Your task to perform on an android device: turn on location history Image 0: 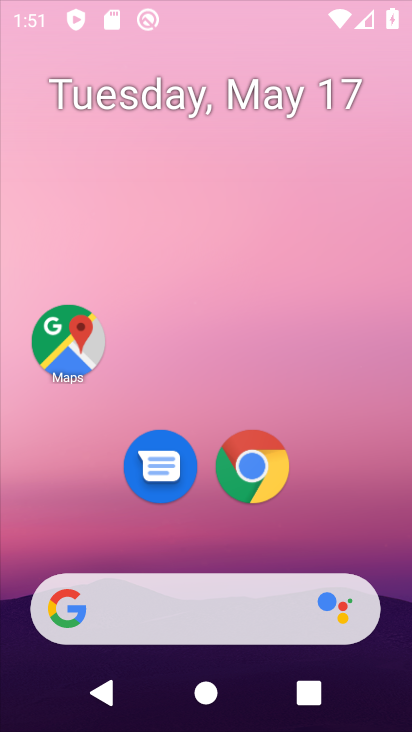
Step 0: click (264, 480)
Your task to perform on an android device: turn on location history Image 1: 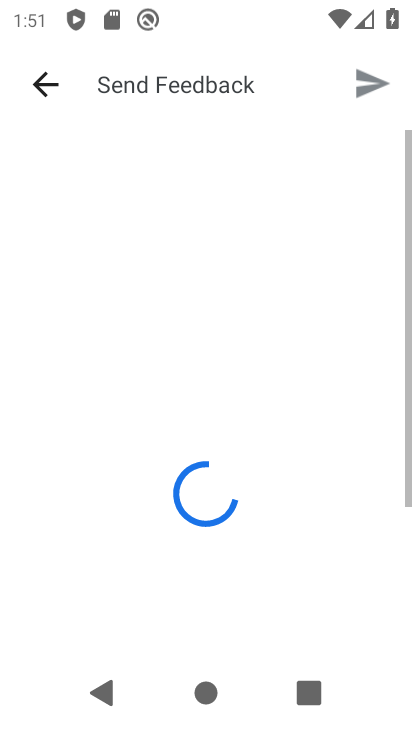
Step 1: click (279, 472)
Your task to perform on an android device: turn on location history Image 2: 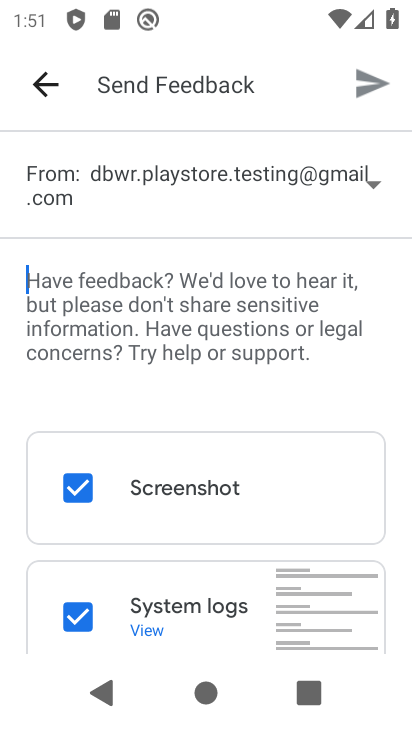
Step 2: press home button
Your task to perform on an android device: turn on location history Image 3: 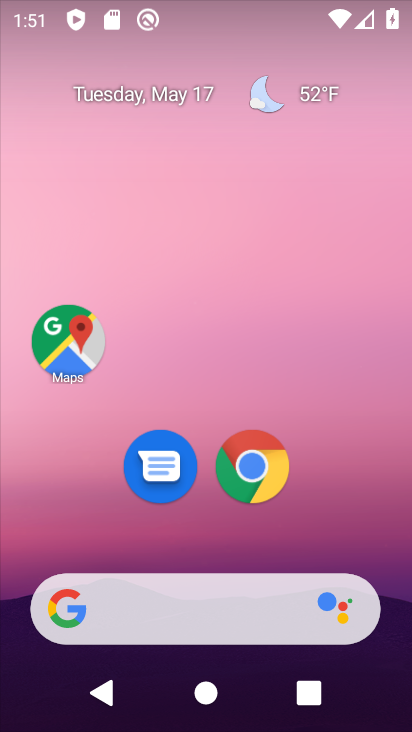
Step 3: drag from (81, 578) to (252, 120)
Your task to perform on an android device: turn on location history Image 4: 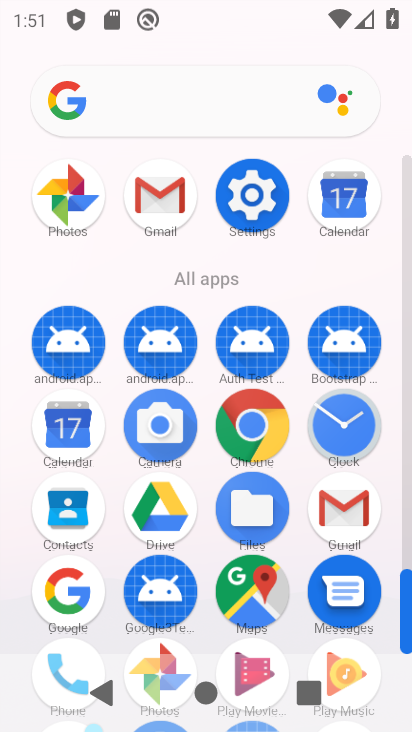
Step 4: drag from (197, 598) to (254, 340)
Your task to perform on an android device: turn on location history Image 5: 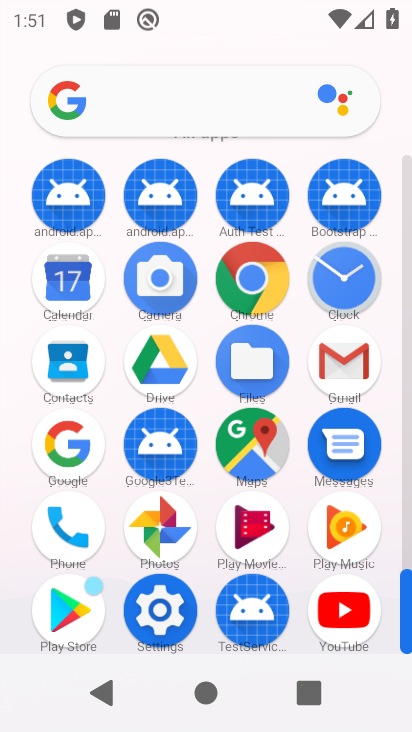
Step 5: click (154, 614)
Your task to perform on an android device: turn on location history Image 6: 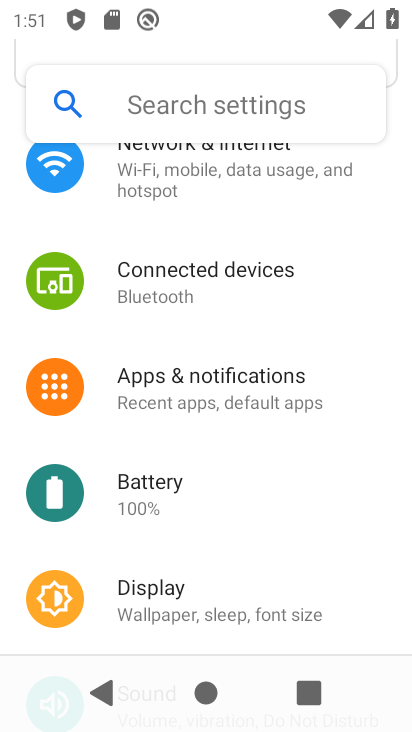
Step 6: drag from (217, 332) to (353, 197)
Your task to perform on an android device: turn on location history Image 7: 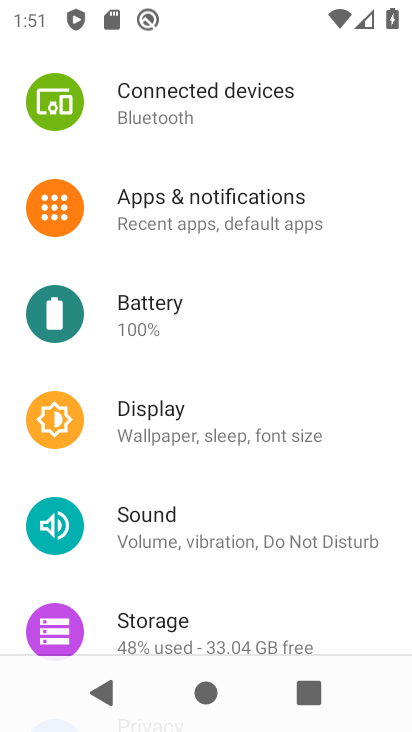
Step 7: drag from (196, 587) to (303, 245)
Your task to perform on an android device: turn on location history Image 8: 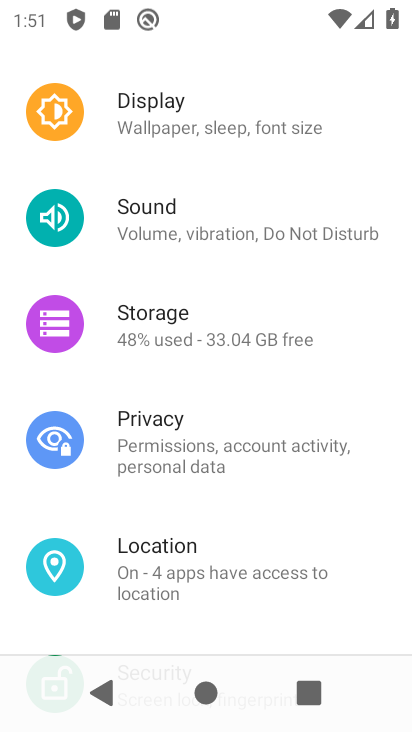
Step 8: click (195, 567)
Your task to perform on an android device: turn on location history Image 9: 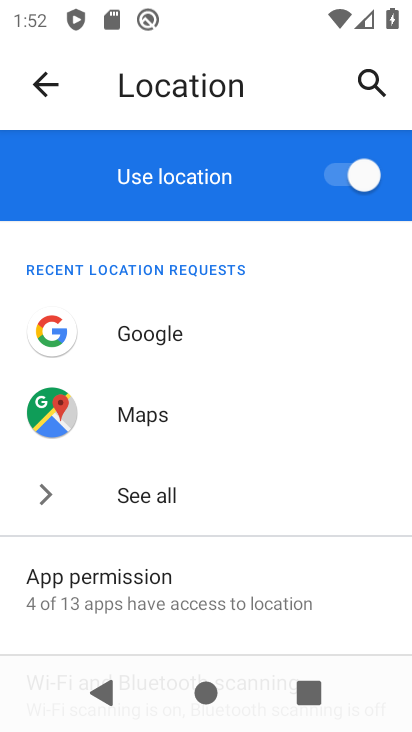
Step 9: drag from (167, 623) to (302, 297)
Your task to perform on an android device: turn on location history Image 10: 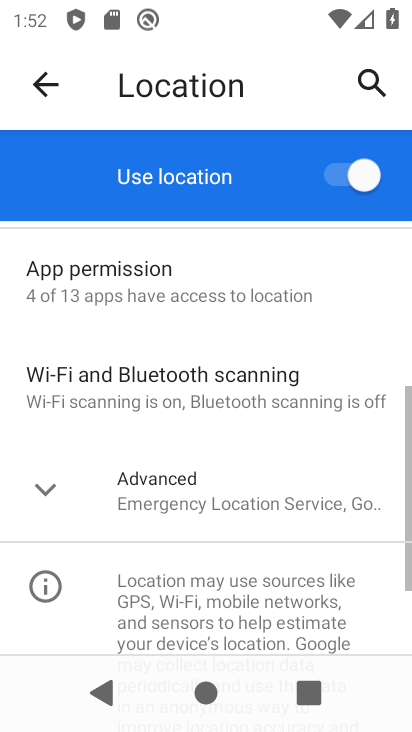
Step 10: click (246, 484)
Your task to perform on an android device: turn on location history Image 11: 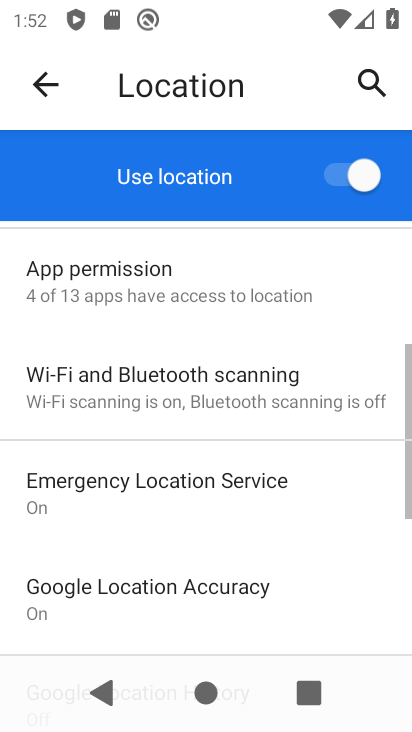
Step 11: drag from (195, 528) to (269, 255)
Your task to perform on an android device: turn on location history Image 12: 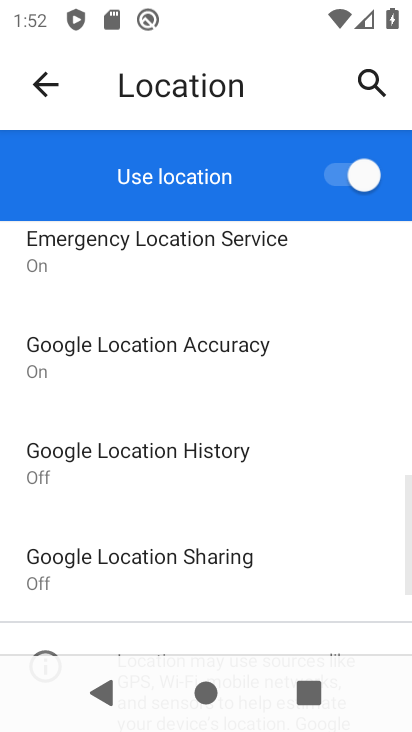
Step 12: click (195, 472)
Your task to perform on an android device: turn on location history Image 13: 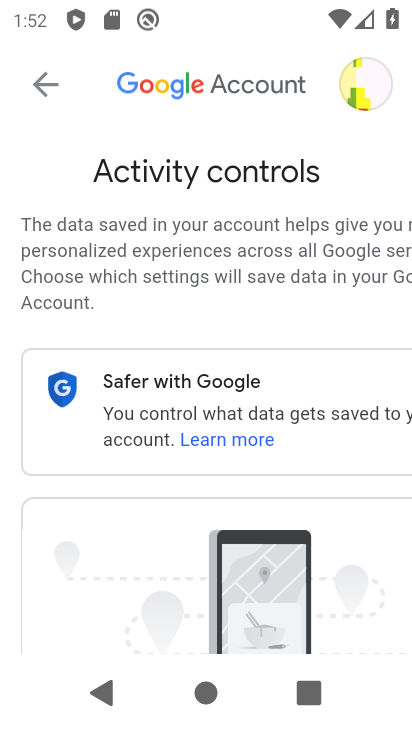
Step 13: drag from (116, 574) to (275, 14)
Your task to perform on an android device: turn on location history Image 14: 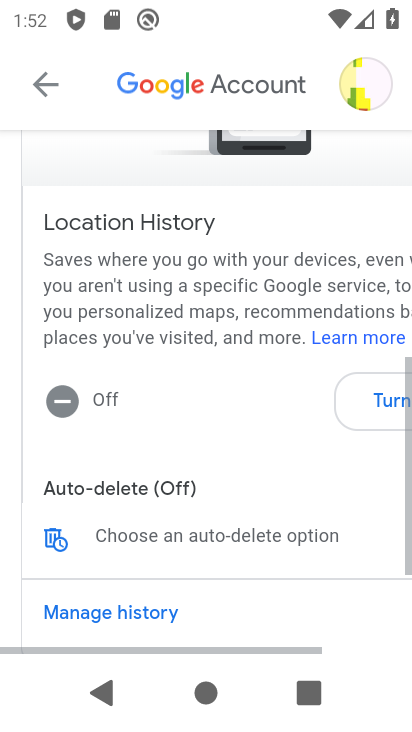
Step 14: drag from (172, 472) to (191, 373)
Your task to perform on an android device: turn on location history Image 15: 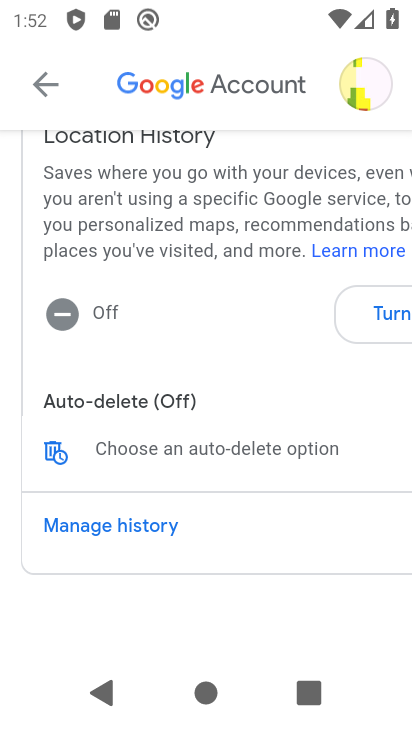
Step 15: click (382, 325)
Your task to perform on an android device: turn on location history Image 16: 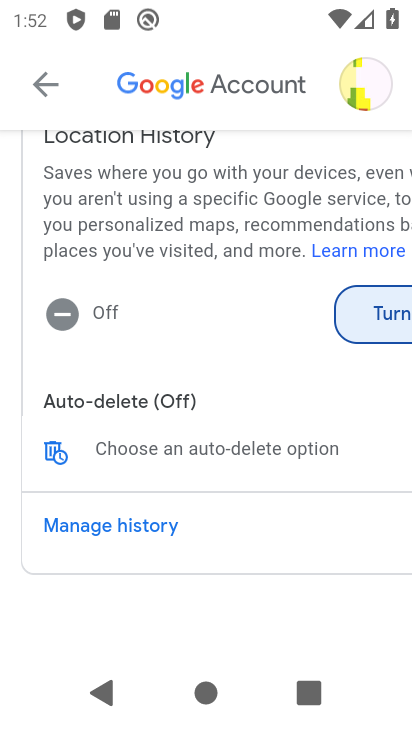
Step 16: click (383, 322)
Your task to perform on an android device: turn on location history Image 17: 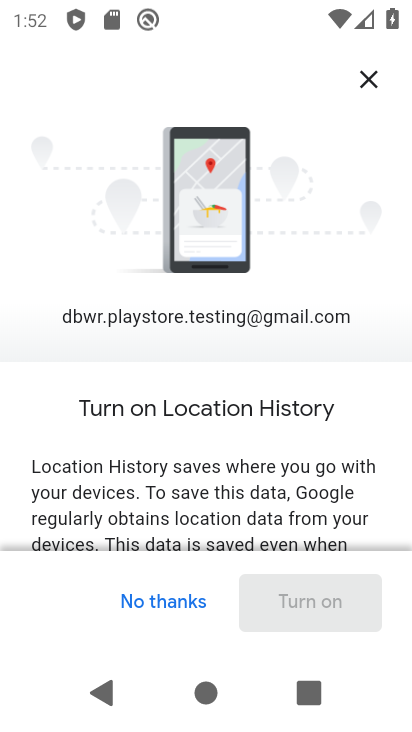
Step 17: drag from (223, 476) to (291, 0)
Your task to perform on an android device: turn on location history Image 18: 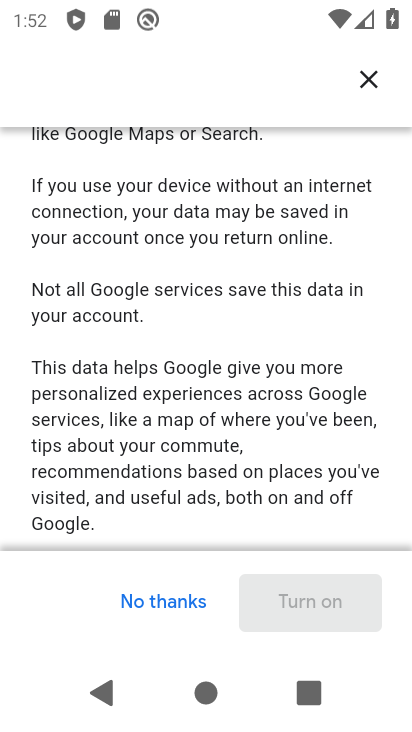
Step 18: drag from (243, 426) to (310, 149)
Your task to perform on an android device: turn on location history Image 19: 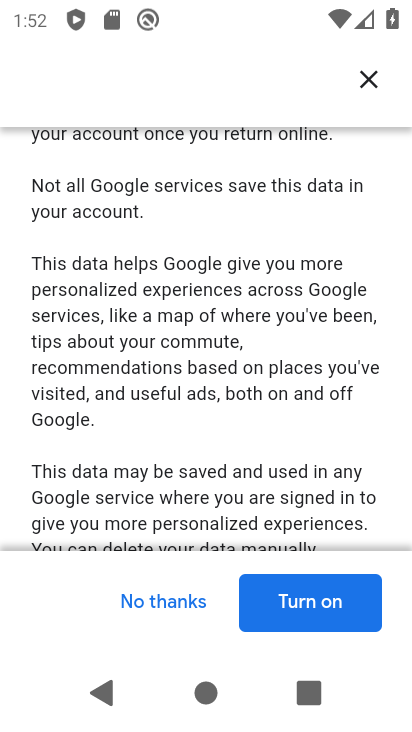
Step 19: click (330, 594)
Your task to perform on an android device: turn on location history Image 20: 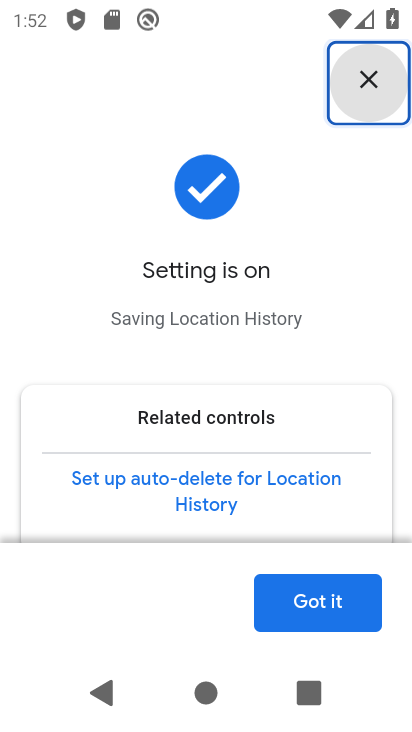
Step 20: click (304, 591)
Your task to perform on an android device: turn on location history Image 21: 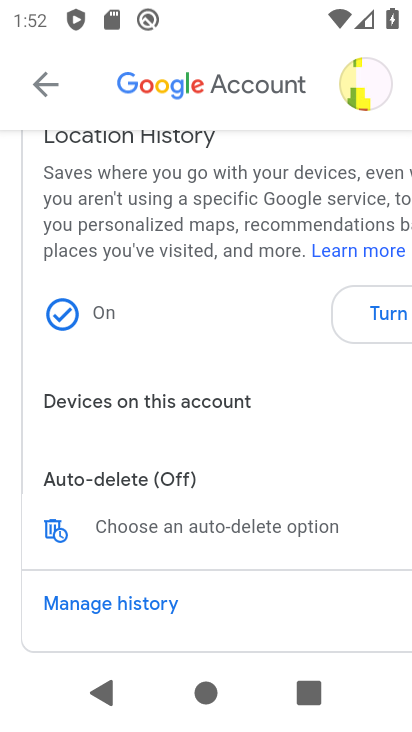
Step 21: task complete